Your task to perform on an android device: Open location settings Image 0: 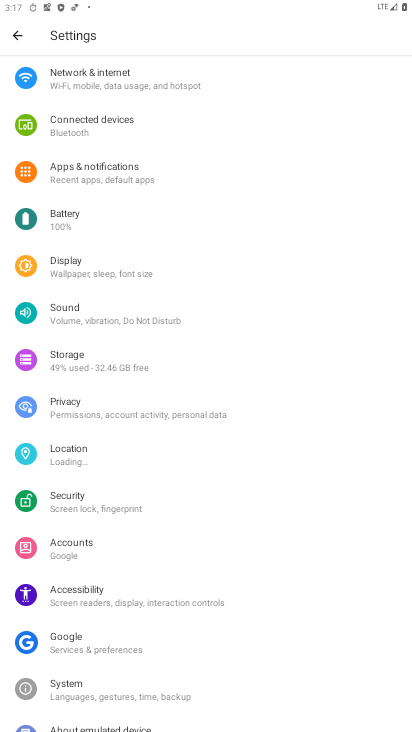
Step 0: click (71, 460)
Your task to perform on an android device: Open location settings Image 1: 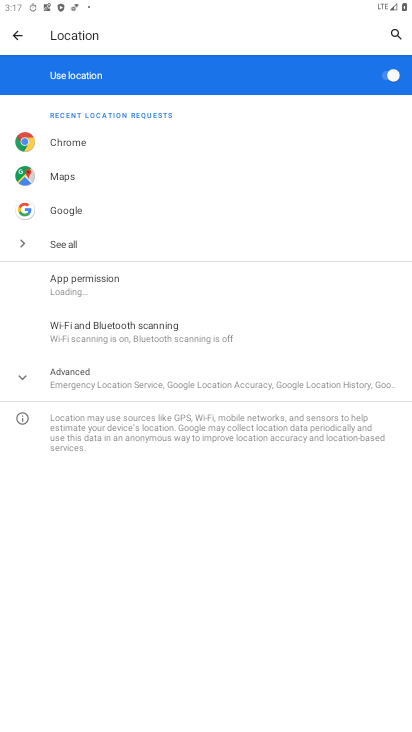
Step 1: task complete